Your task to perform on an android device: toggle translation in the chrome app Image 0: 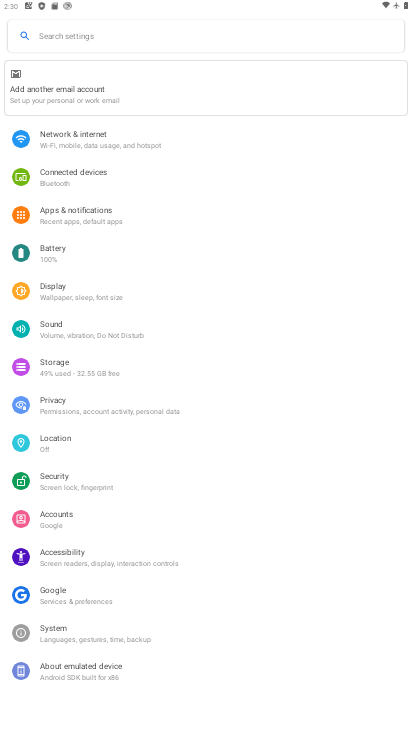
Step 0: press home button
Your task to perform on an android device: toggle translation in the chrome app Image 1: 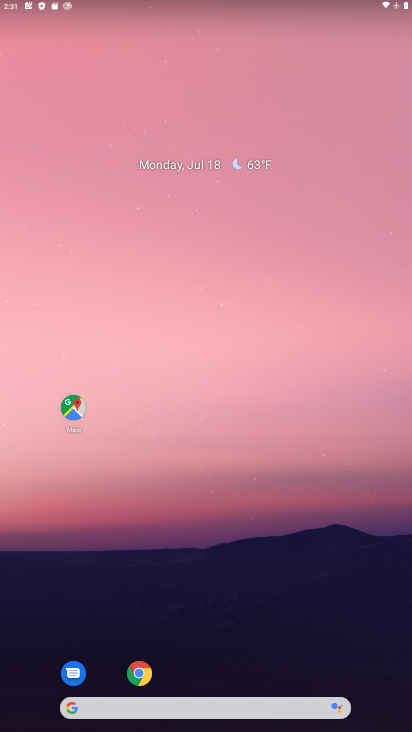
Step 1: drag from (266, 642) to (218, 322)
Your task to perform on an android device: toggle translation in the chrome app Image 2: 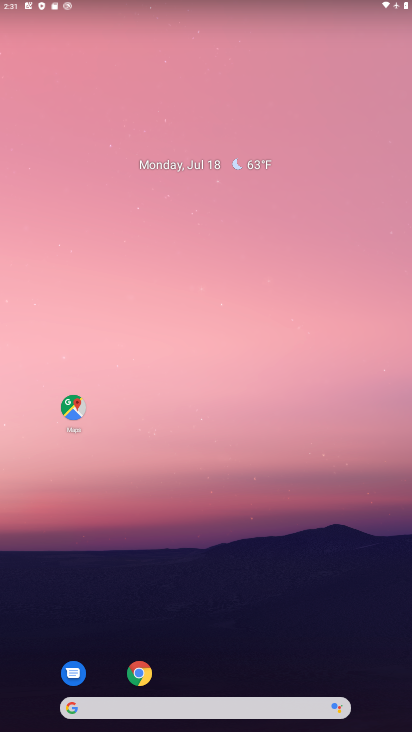
Step 2: drag from (237, 674) to (206, 399)
Your task to perform on an android device: toggle translation in the chrome app Image 3: 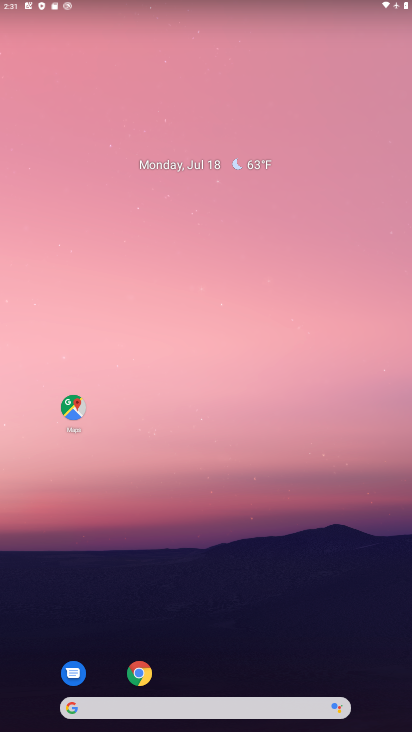
Step 3: drag from (236, 671) to (207, 251)
Your task to perform on an android device: toggle translation in the chrome app Image 4: 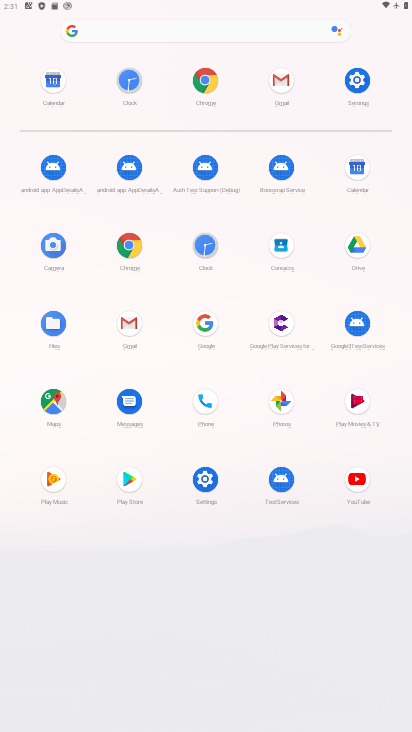
Step 4: click (353, 71)
Your task to perform on an android device: toggle translation in the chrome app Image 5: 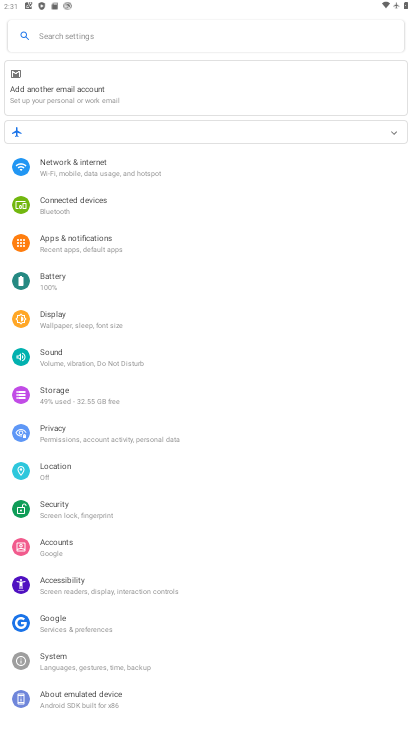
Step 5: click (80, 467)
Your task to perform on an android device: toggle translation in the chrome app Image 6: 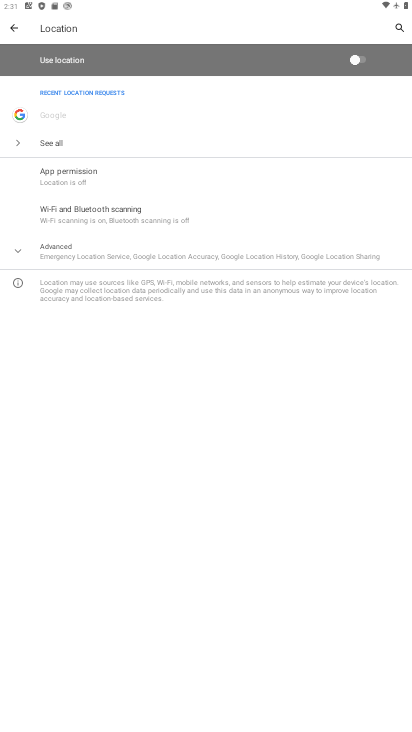
Step 6: click (116, 255)
Your task to perform on an android device: toggle translation in the chrome app Image 7: 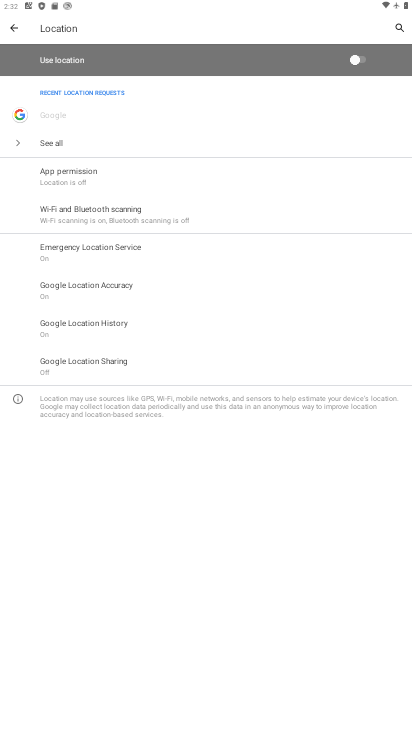
Step 7: click (20, 33)
Your task to perform on an android device: toggle translation in the chrome app Image 8: 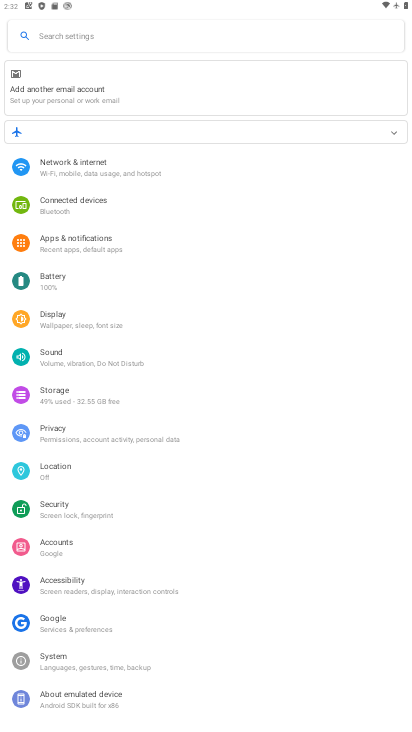
Step 8: press home button
Your task to perform on an android device: toggle translation in the chrome app Image 9: 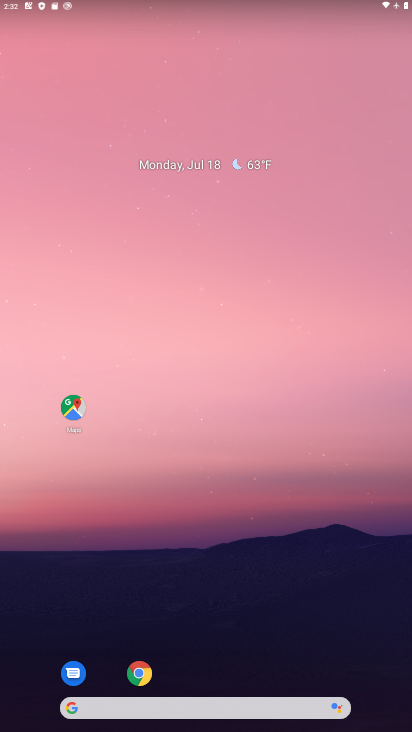
Step 9: click (144, 679)
Your task to perform on an android device: toggle translation in the chrome app Image 10: 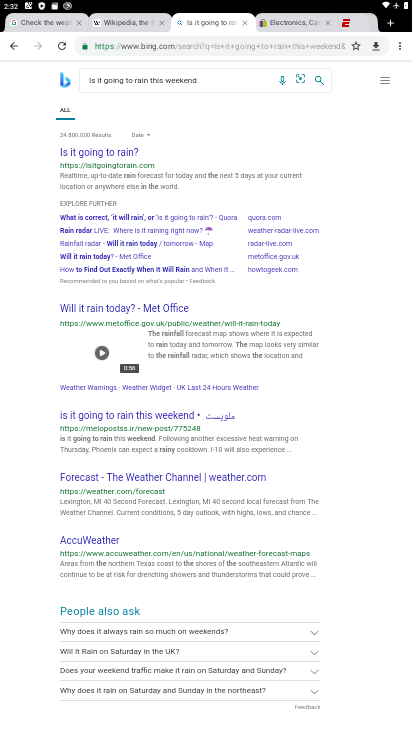
Step 10: click (399, 40)
Your task to perform on an android device: toggle translation in the chrome app Image 11: 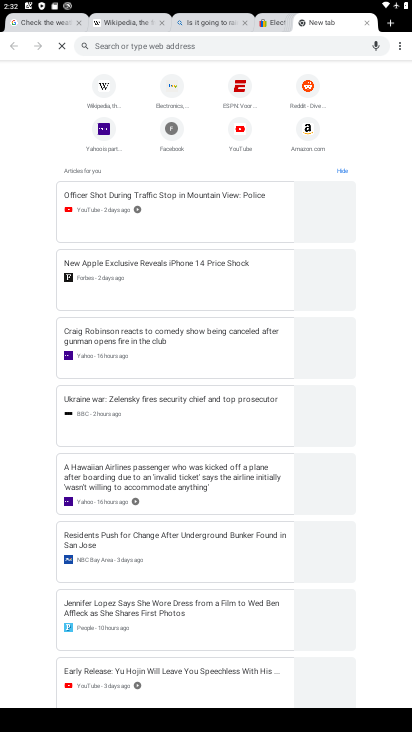
Step 11: click (399, 45)
Your task to perform on an android device: toggle translation in the chrome app Image 12: 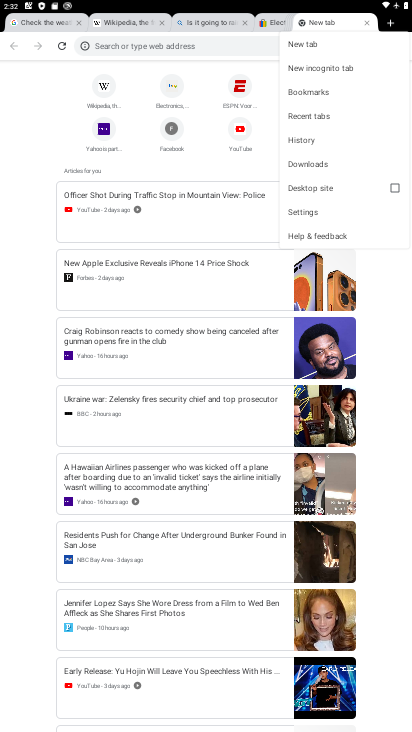
Step 12: click (313, 212)
Your task to perform on an android device: toggle translation in the chrome app Image 13: 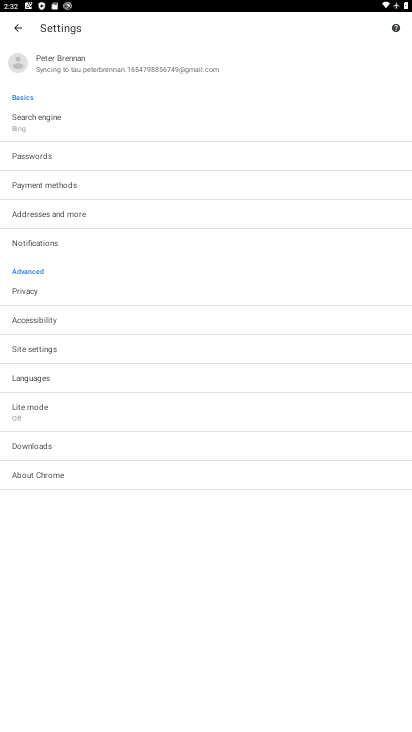
Step 13: click (64, 376)
Your task to perform on an android device: toggle translation in the chrome app Image 14: 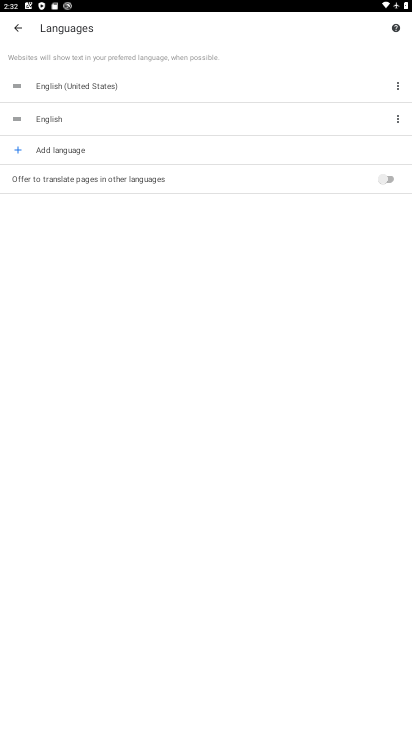
Step 14: click (388, 181)
Your task to perform on an android device: toggle translation in the chrome app Image 15: 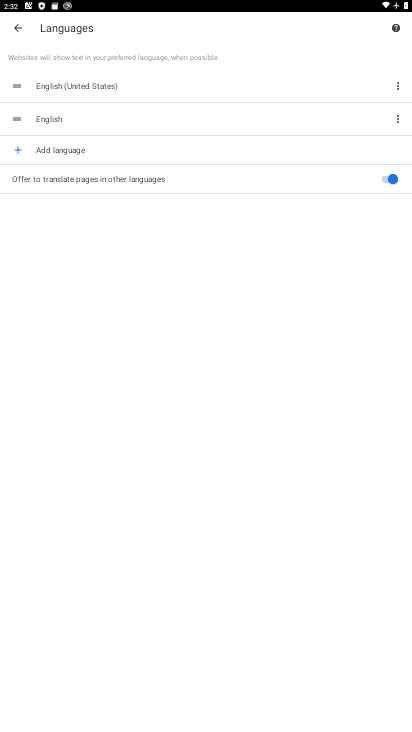
Step 15: task complete